Your task to perform on an android device: create a new album in the google photos Image 0: 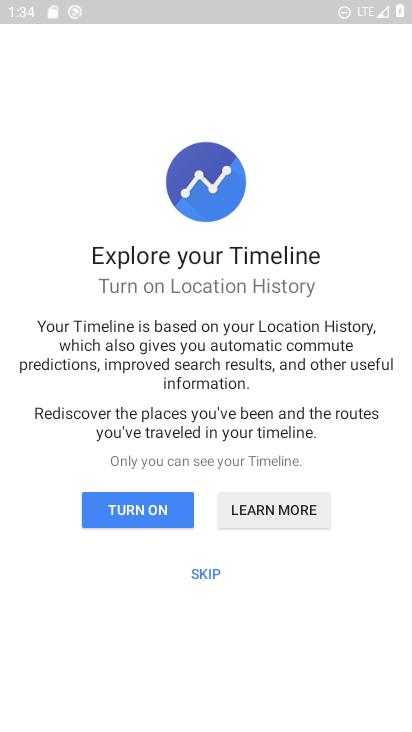
Step 0: click (206, 573)
Your task to perform on an android device: create a new album in the google photos Image 1: 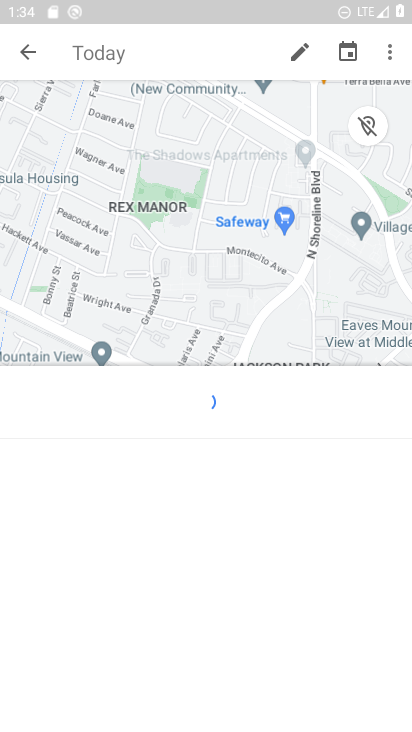
Step 1: press home button
Your task to perform on an android device: create a new album in the google photos Image 2: 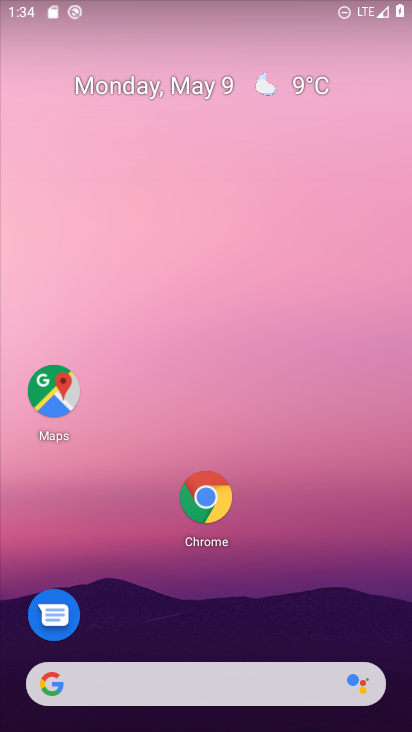
Step 2: drag from (321, 564) to (302, 1)
Your task to perform on an android device: create a new album in the google photos Image 3: 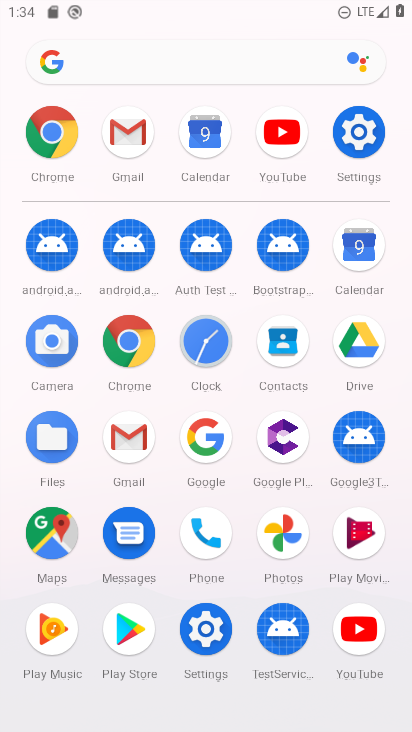
Step 3: click (287, 529)
Your task to perform on an android device: create a new album in the google photos Image 4: 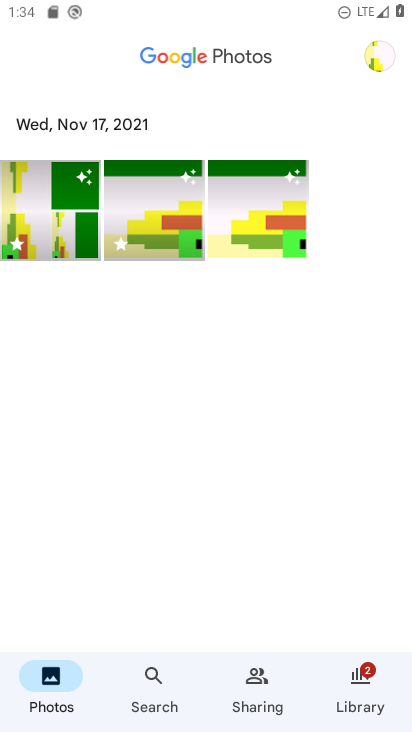
Step 4: click (382, 693)
Your task to perform on an android device: create a new album in the google photos Image 5: 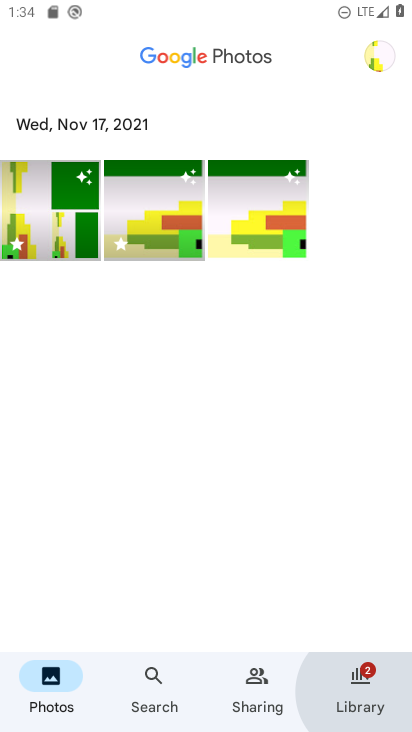
Step 5: click (379, 672)
Your task to perform on an android device: create a new album in the google photos Image 6: 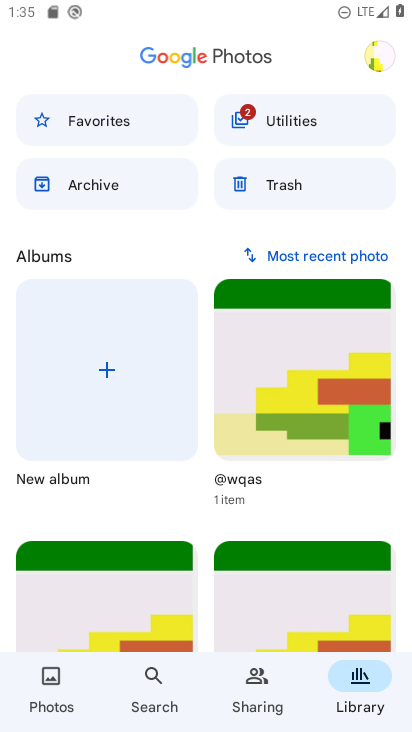
Step 6: click (126, 373)
Your task to perform on an android device: create a new album in the google photos Image 7: 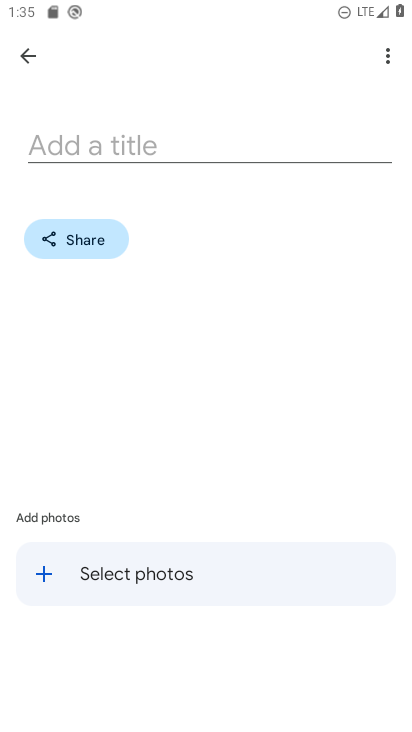
Step 7: click (144, 138)
Your task to perform on an android device: create a new album in the google photos Image 8: 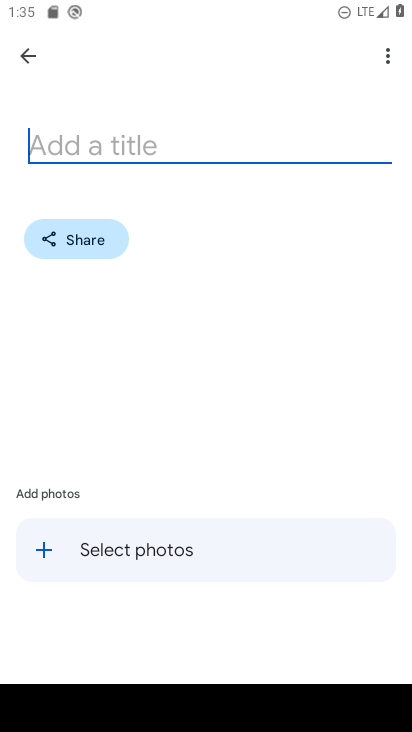
Step 8: type "janu janu jina"
Your task to perform on an android device: create a new album in the google photos Image 9: 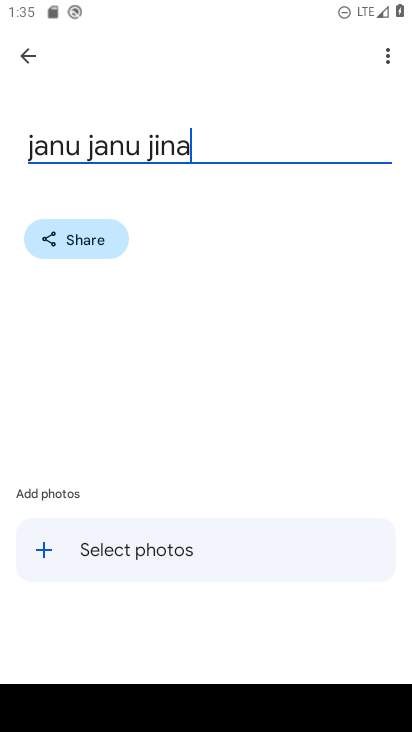
Step 9: click (257, 546)
Your task to perform on an android device: create a new album in the google photos Image 10: 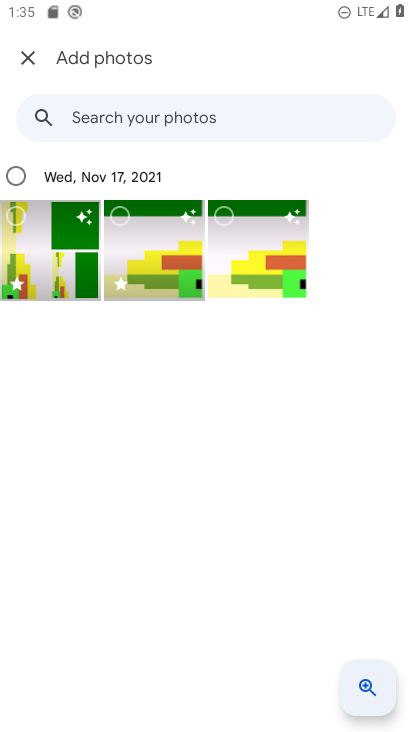
Step 10: click (21, 215)
Your task to perform on an android device: create a new album in the google photos Image 11: 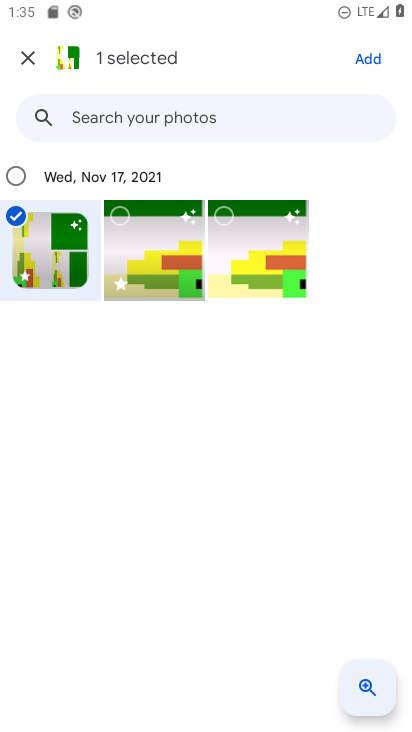
Step 11: click (359, 56)
Your task to perform on an android device: create a new album in the google photos Image 12: 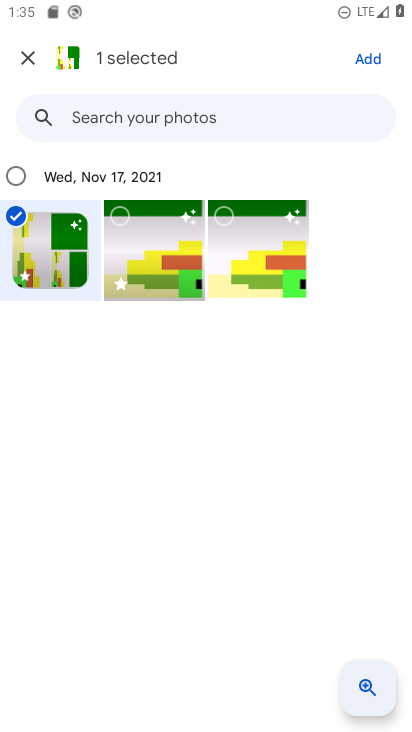
Step 12: click (364, 58)
Your task to perform on an android device: create a new album in the google photos Image 13: 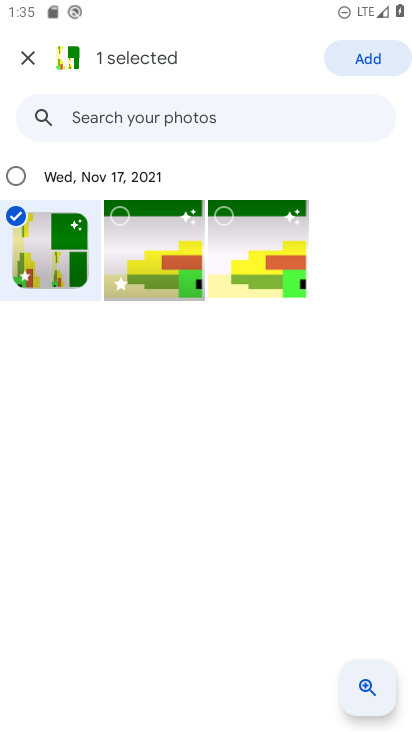
Step 13: press enter
Your task to perform on an android device: create a new album in the google photos Image 14: 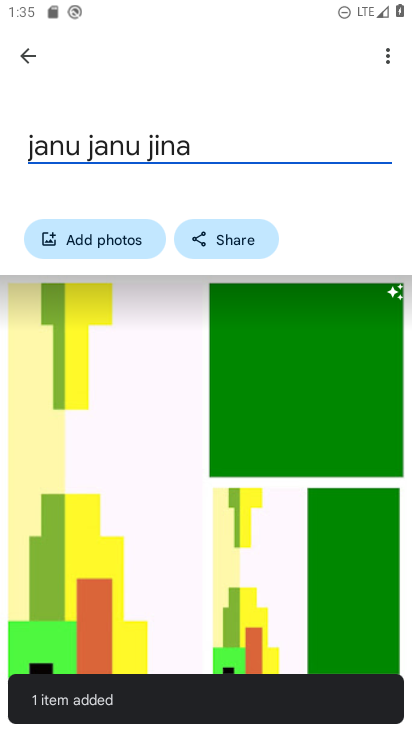
Step 14: press enter
Your task to perform on an android device: create a new album in the google photos Image 15: 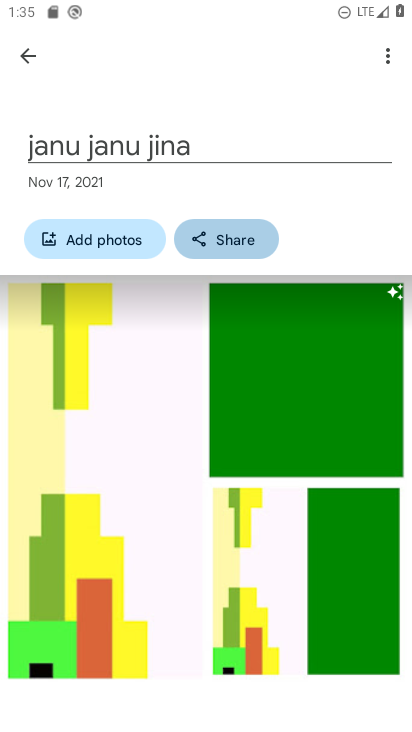
Step 15: click (388, 56)
Your task to perform on an android device: create a new album in the google photos Image 16: 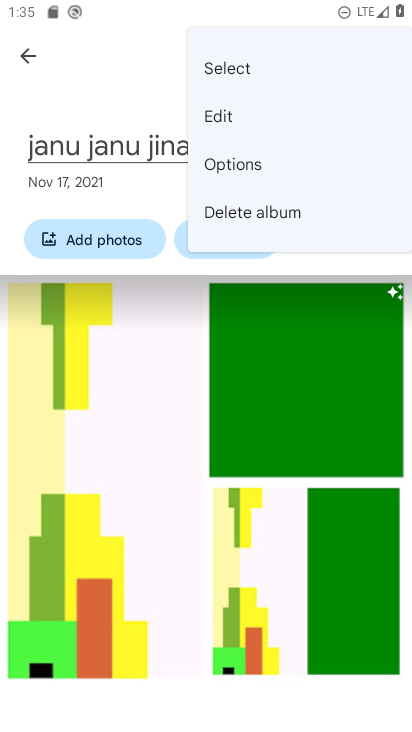
Step 16: click (103, 88)
Your task to perform on an android device: create a new album in the google photos Image 17: 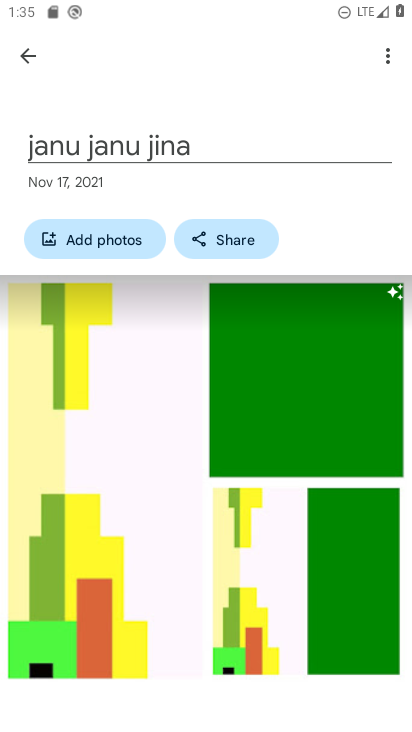
Step 17: click (31, 56)
Your task to perform on an android device: create a new album in the google photos Image 18: 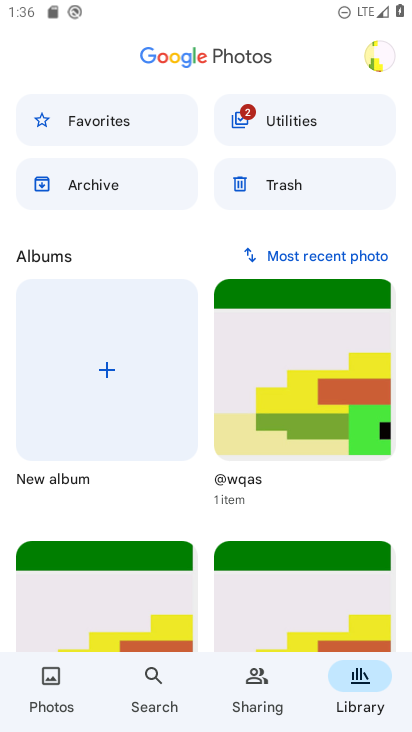
Step 18: task complete